Your task to perform on an android device: Open the phone app and click the voicemail tab. Image 0: 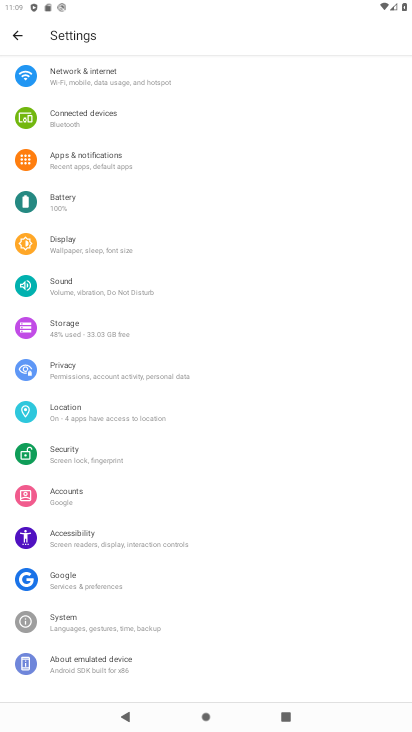
Step 0: press home button
Your task to perform on an android device: Open the phone app and click the voicemail tab. Image 1: 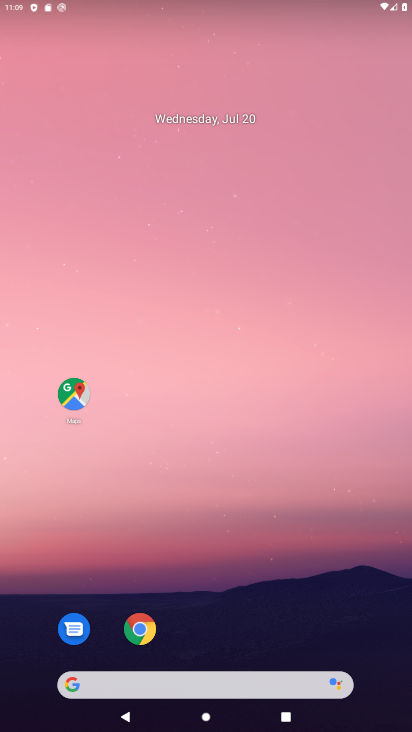
Step 1: drag from (284, 682) to (397, 2)
Your task to perform on an android device: Open the phone app and click the voicemail tab. Image 2: 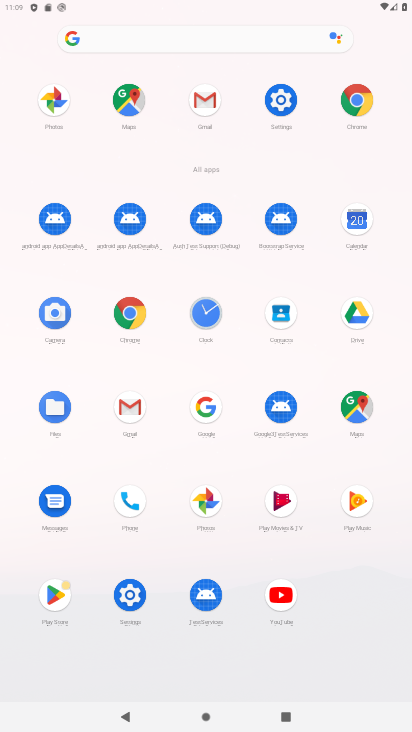
Step 2: click (140, 501)
Your task to perform on an android device: Open the phone app and click the voicemail tab. Image 3: 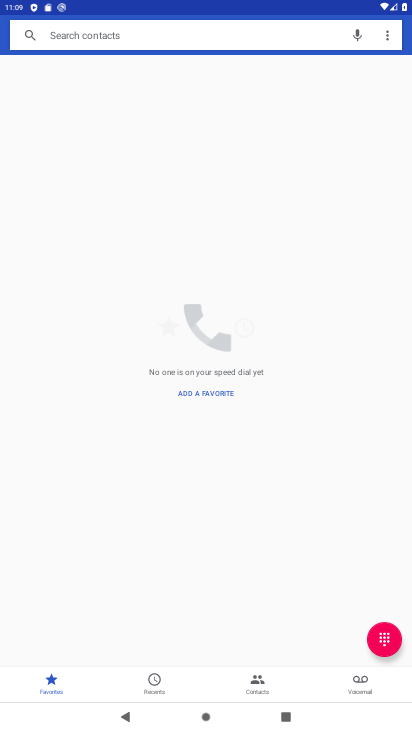
Step 3: click (342, 670)
Your task to perform on an android device: Open the phone app and click the voicemail tab. Image 4: 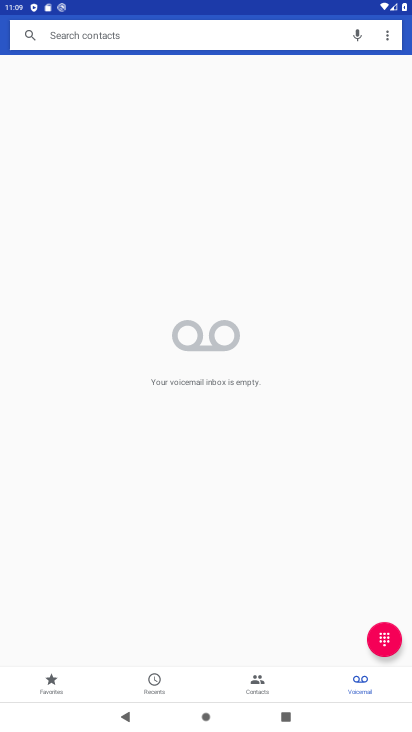
Step 4: task complete